Your task to perform on an android device: Open calendar and show me the first week of next month Image 0: 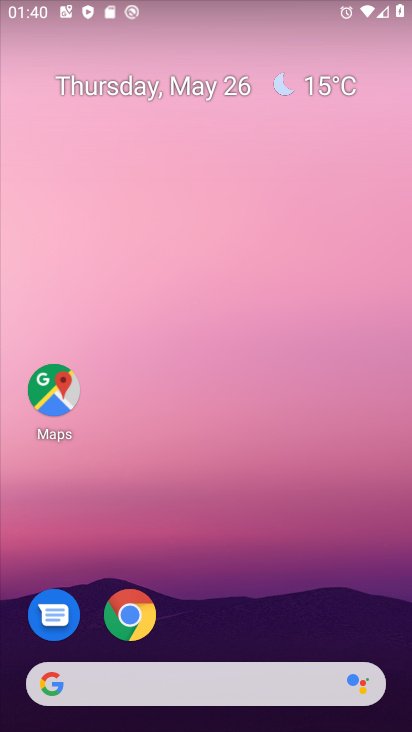
Step 0: drag from (204, 629) to (248, 97)
Your task to perform on an android device: Open calendar and show me the first week of next month Image 1: 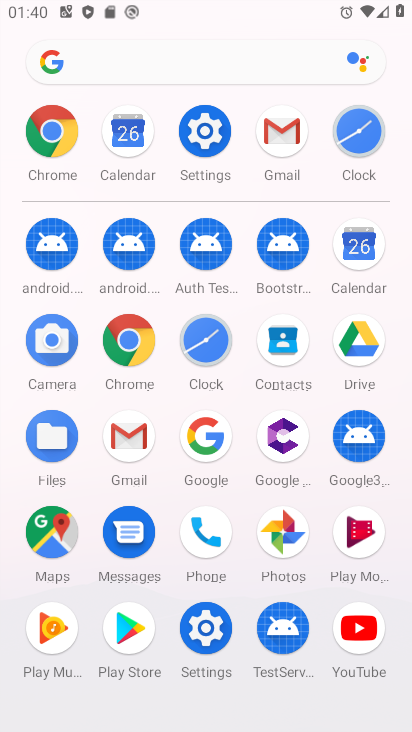
Step 1: click (374, 236)
Your task to perform on an android device: Open calendar and show me the first week of next month Image 2: 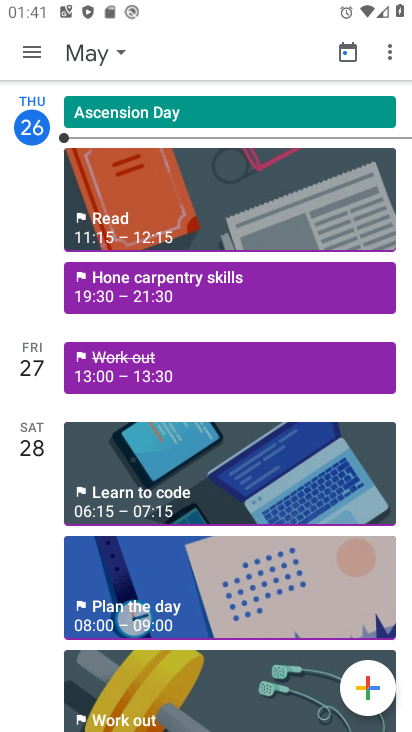
Step 2: click (108, 46)
Your task to perform on an android device: Open calendar and show me the first week of next month Image 3: 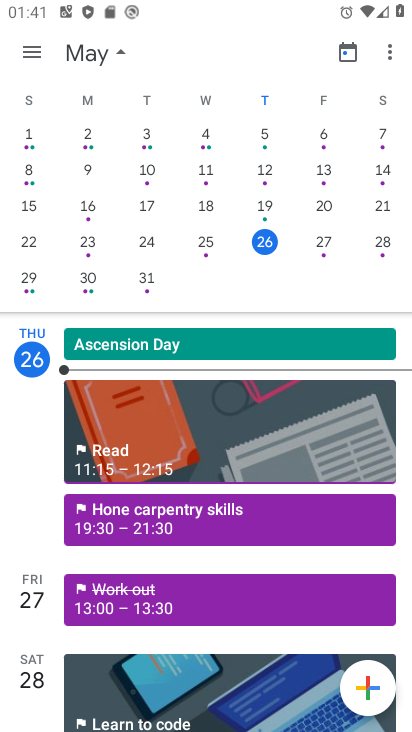
Step 3: drag from (389, 223) to (51, 199)
Your task to perform on an android device: Open calendar and show me the first week of next month Image 4: 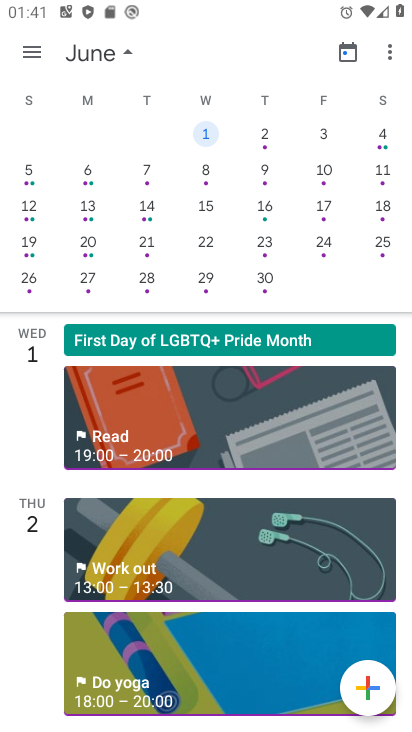
Step 4: click (88, 245)
Your task to perform on an android device: Open calendar and show me the first week of next month Image 5: 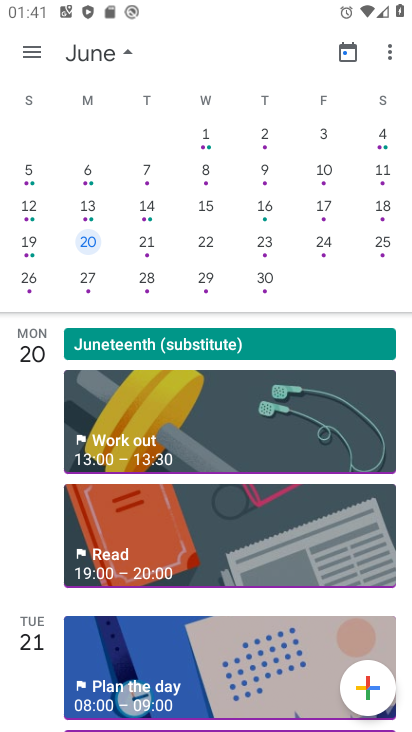
Step 5: task complete